Your task to perform on an android device: Go to Amazon Image 0: 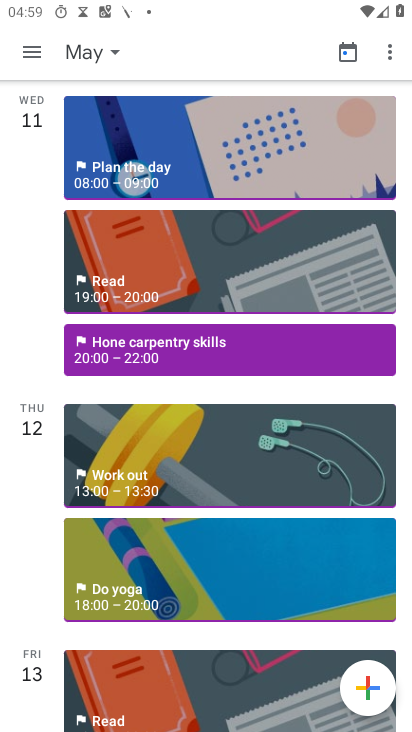
Step 0: press home button
Your task to perform on an android device: Go to Amazon Image 1: 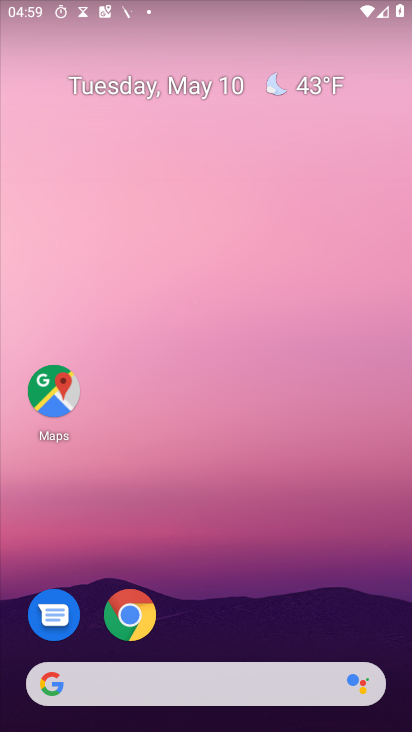
Step 1: drag from (247, 672) to (298, 98)
Your task to perform on an android device: Go to Amazon Image 2: 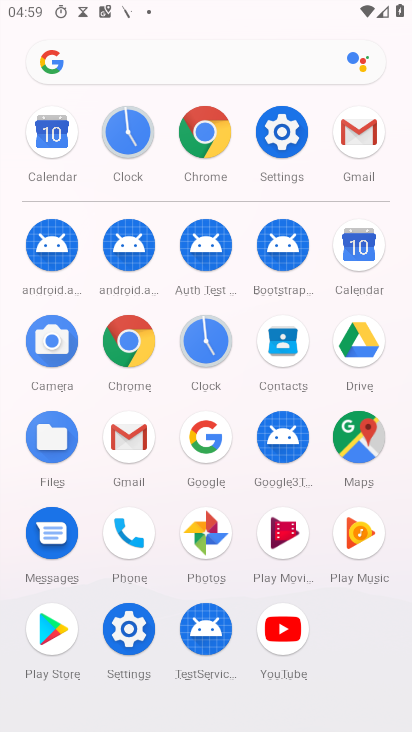
Step 2: click (132, 332)
Your task to perform on an android device: Go to Amazon Image 3: 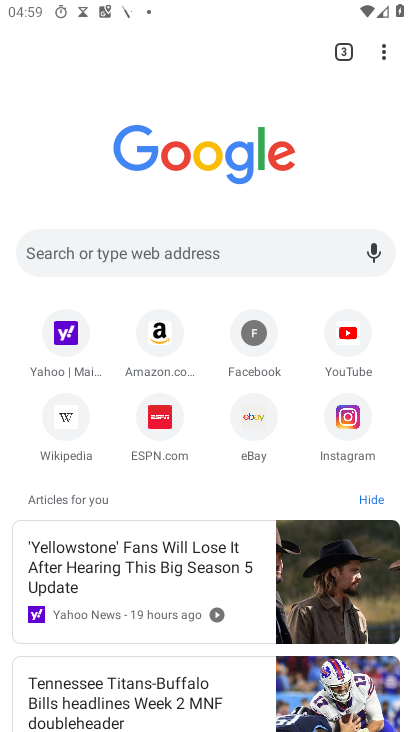
Step 3: click (170, 342)
Your task to perform on an android device: Go to Amazon Image 4: 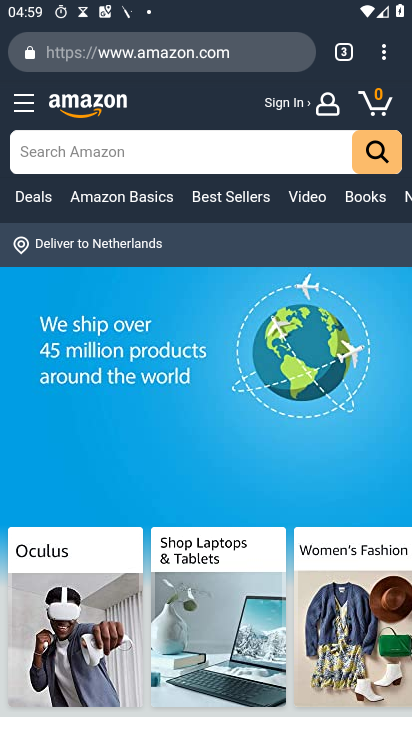
Step 4: task complete